Your task to perform on an android device: toggle javascript in the chrome app Image 0: 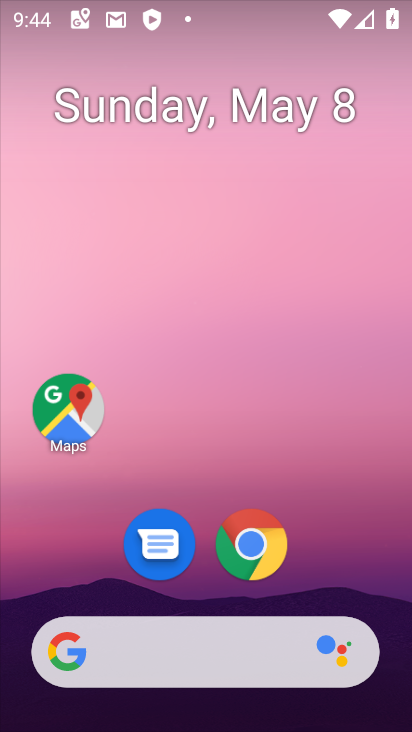
Step 0: click (232, 548)
Your task to perform on an android device: toggle javascript in the chrome app Image 1: 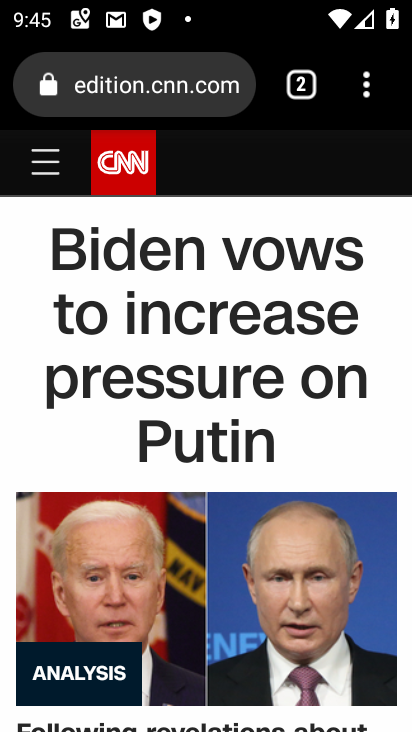
Step 1: click (370, 85)
Your task to perform on an android device: toggle javascript in the chrome app Image 2: 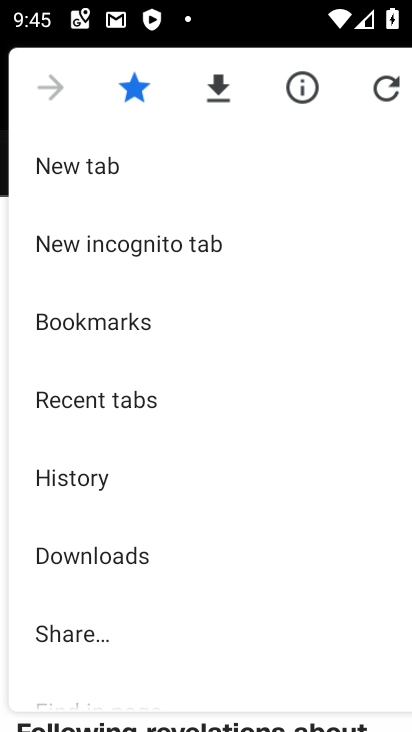
Step 2: drag from (191, 639) to (193, 389)
Your task to perform on an android device: toggle javascript in the chrome app Image 3: 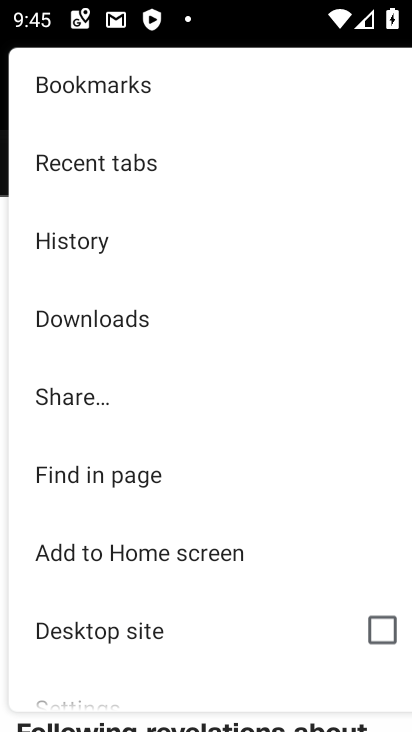
Step 3: click (120, 694)
Your task to perform on an android device: toggle javascript in the chrome app Image 4: 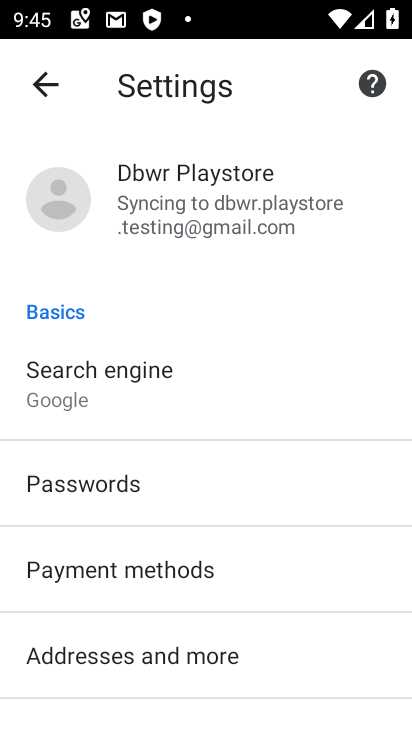
Step 4: drag from (172, 588) to (177, 359)
Your task to perform on an android device: toggle javascript in the chrome app Image 5: 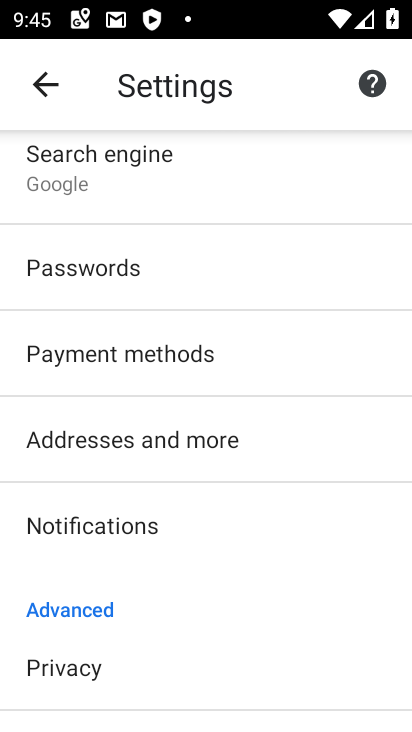
Step 5: drag from (181, 641) to (201, 340)
Your task to perform on an android device: toggle javascript in the chrome app Image 6: 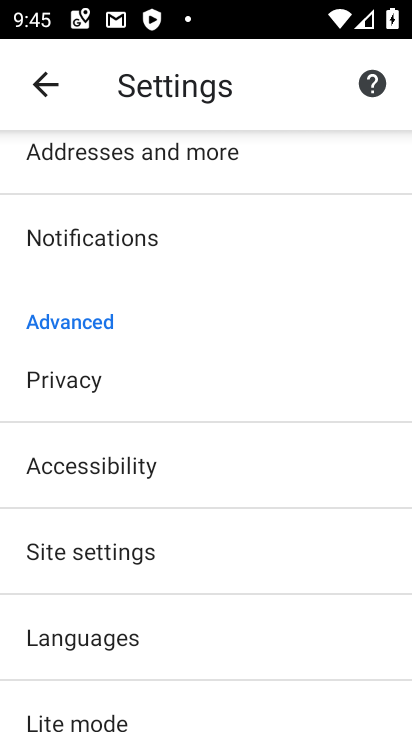
Step 6: click (192, 566)
Your task to perform on an android device: toggle javascript in the chrome app Image 7: 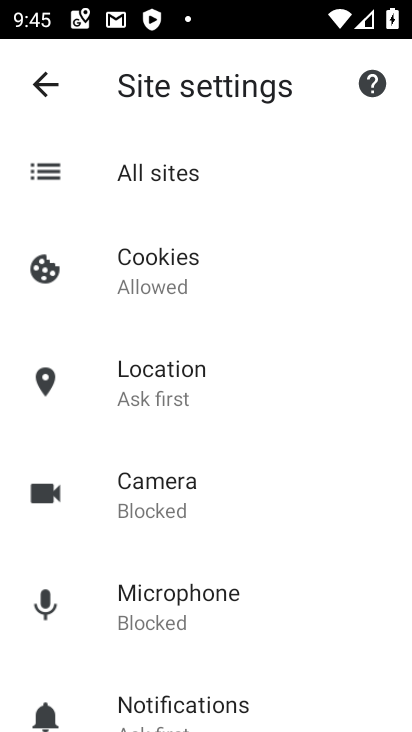
Step 7: drag from (245, 660) to (254, 518)
Your task to perform on an android device: toggle javascript in the chrome app Image 8: 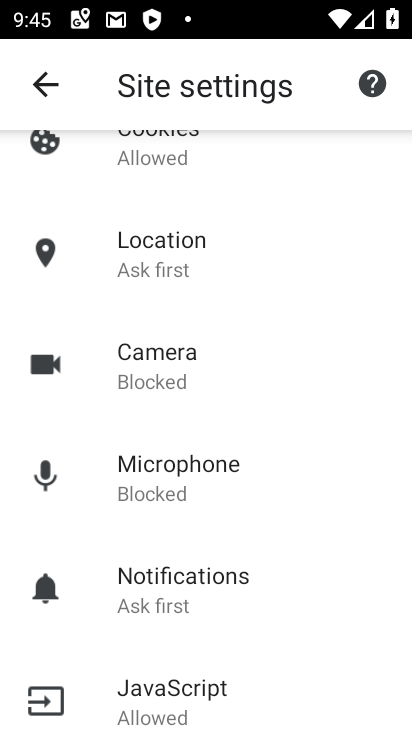
Step 8: click (221, 689)
Your task to perform on an android device: toggle javascript in the chrome app Image 9: 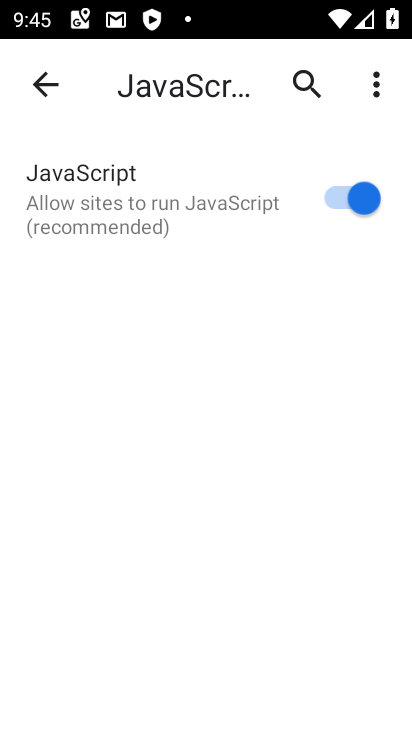
Step 9: click (322, 202)
Your task to perform on an android device: toggle javascript in the chrome app Image 10: 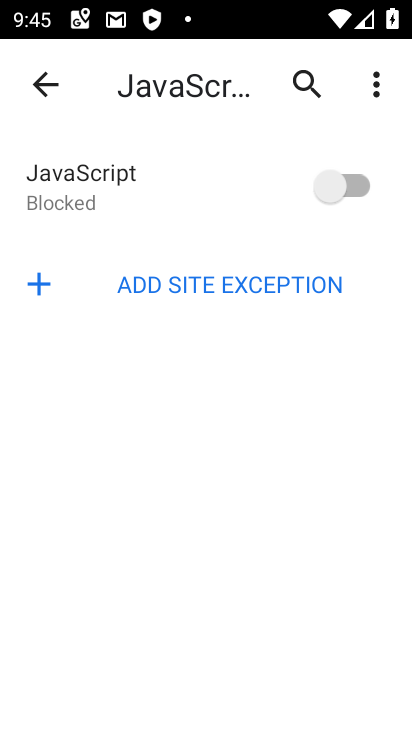
Step 10: task complete